Your task to perform on an android device: Open Google Maps Image 0: 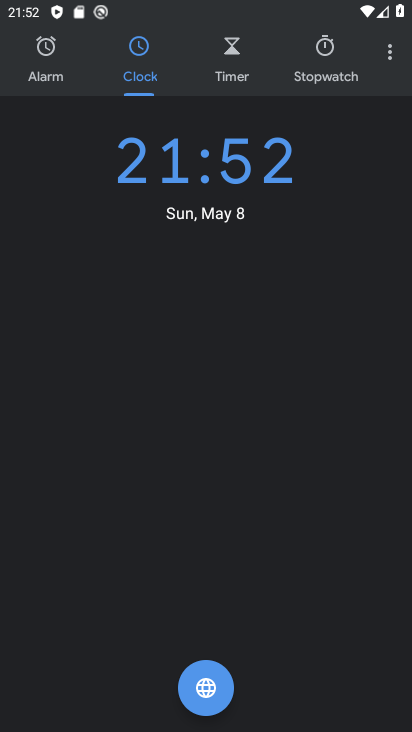
Step 0: press home button
Your task to perform on an android device: Open Google Maps Image 1: 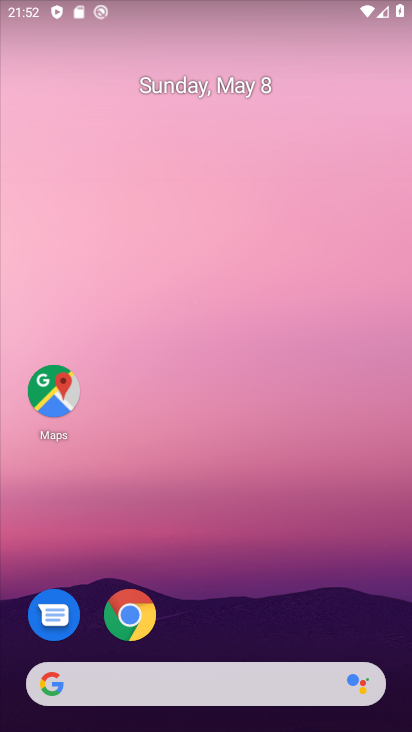
Step 1: click (63, 404)
Your task to perform on an android device: Open Google Maps Image 2: 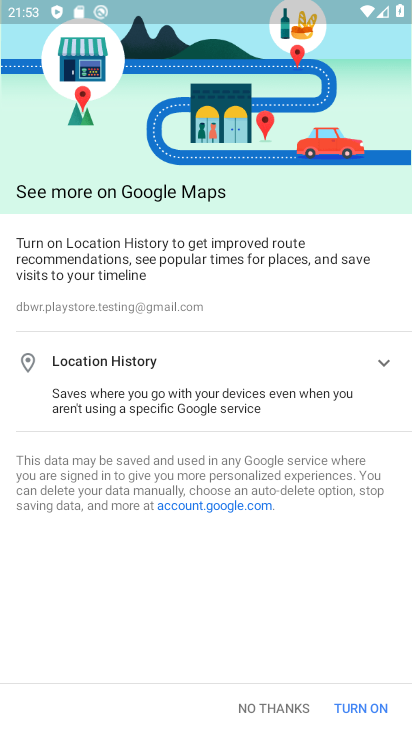
Step 2: click (344, 702)
Your task to perform on an android device: Open Google Maps Image 3: 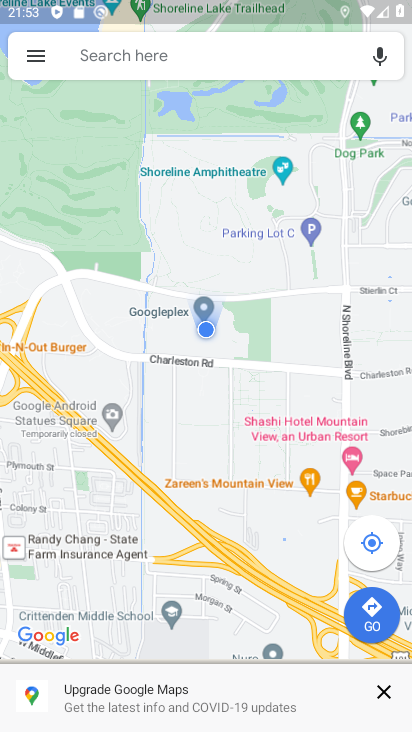
Step 3: task complete